Your task to perform on an android device: Add logitech g pro to the cart on costco.com, then select checkout. Image 0: 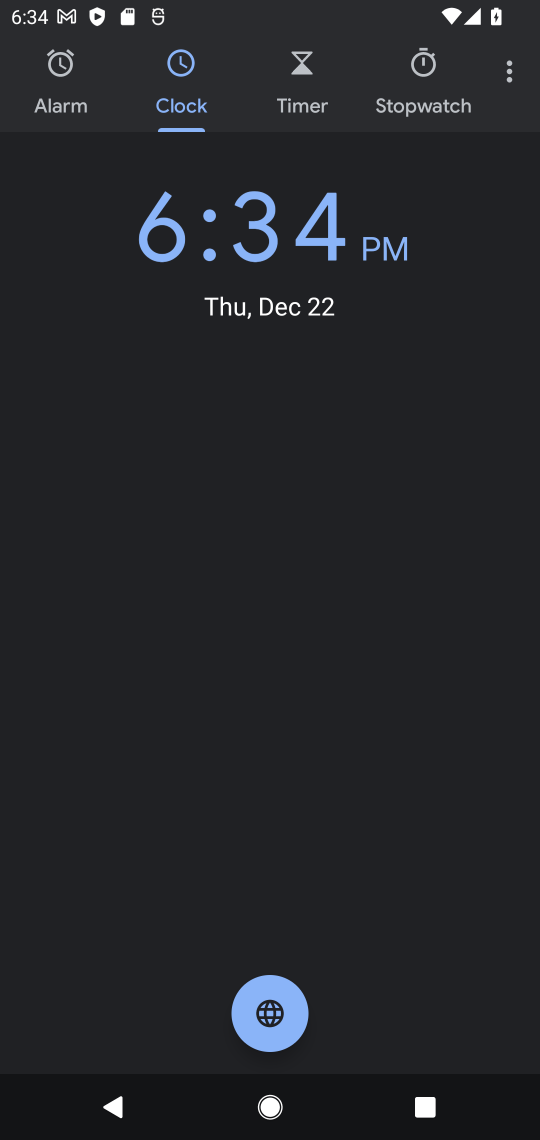
Step 0: press home button
Your task to perform on an android device: Add logitech g pro to the cart on costco.com, then select checkout. Image 1: 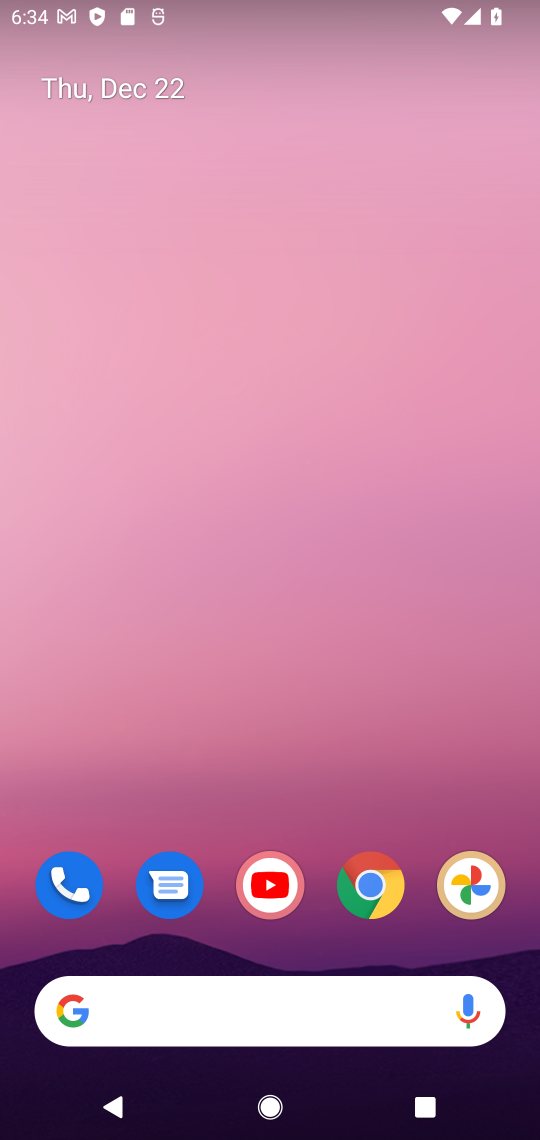
Step 1: click (388, 884)
Your task to perform on an android device: Add logitech g pro to the cart on costco.com, then select checkout. Image 2: 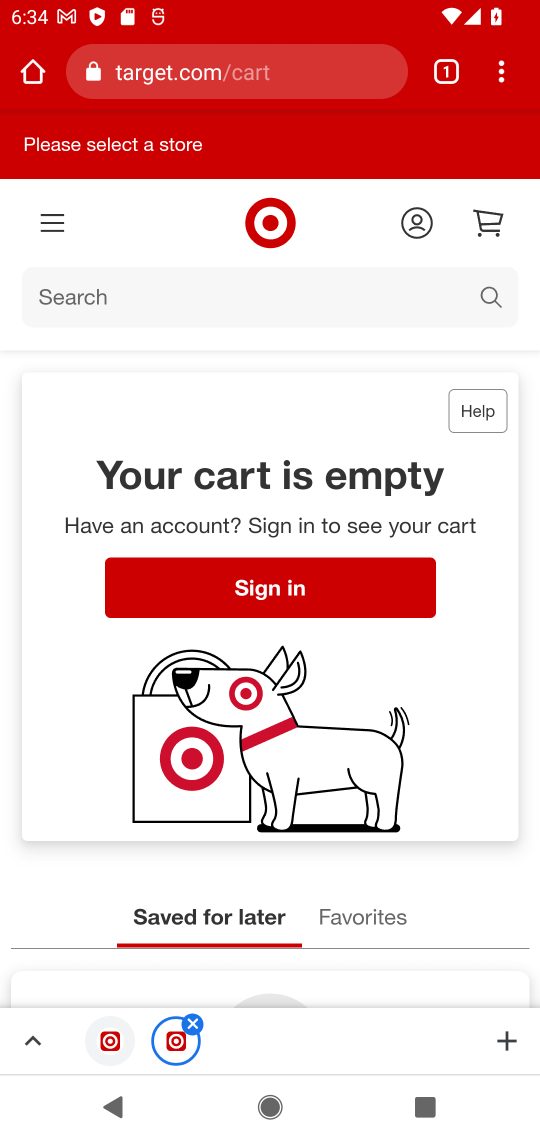
Step 2: click (182, 70)
Your task to perform on an android device: Add logitech g pro to the cart on costco.com, then select checkout. Image 3: 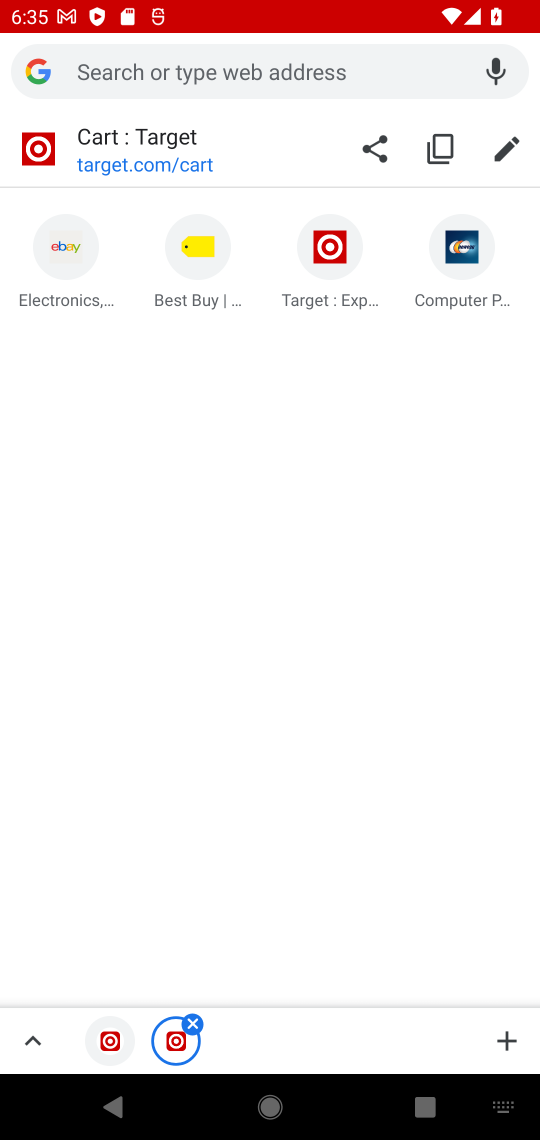
Step 3: type "costco.com"
Your task to perform on an android device: Add logitech g pro to the cart on costco.com, then select checkout. Image 4: 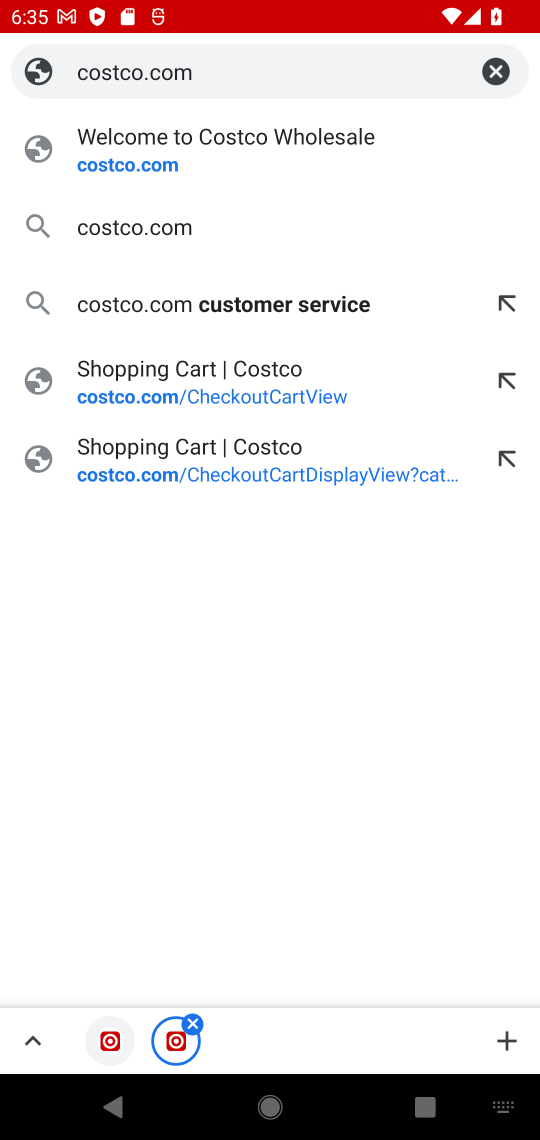
Step 4: click (154, 184)
Your task to perform on an android device: Add logitech g pro to the cart on costco.com, then select checkout. Image 5: 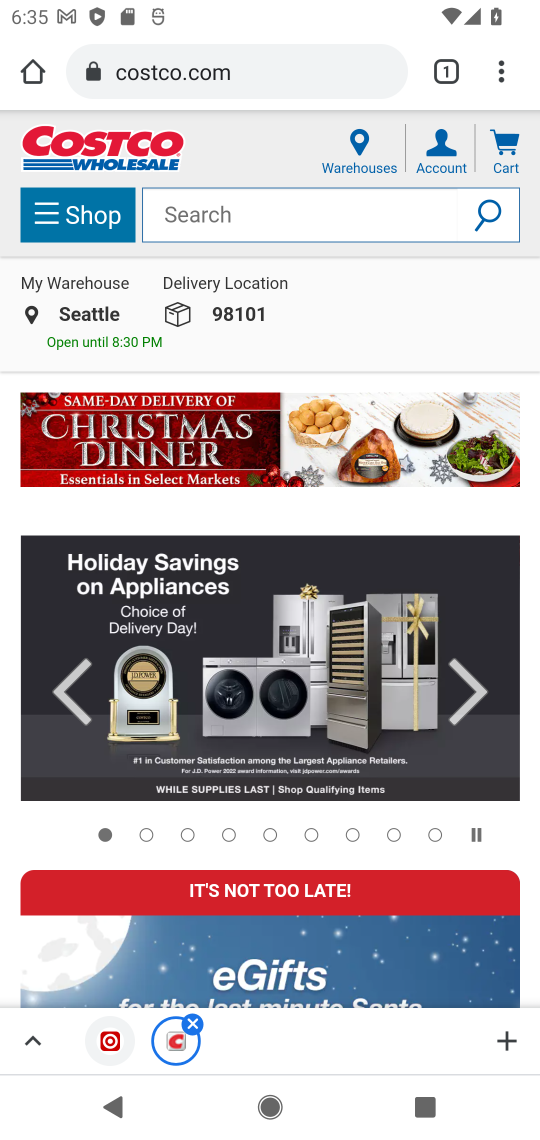
Step 5: click (203, 212)
Your task to perform on an android device: Add logitech g pro to the cart on costco.com, then select checkout. Image 6: 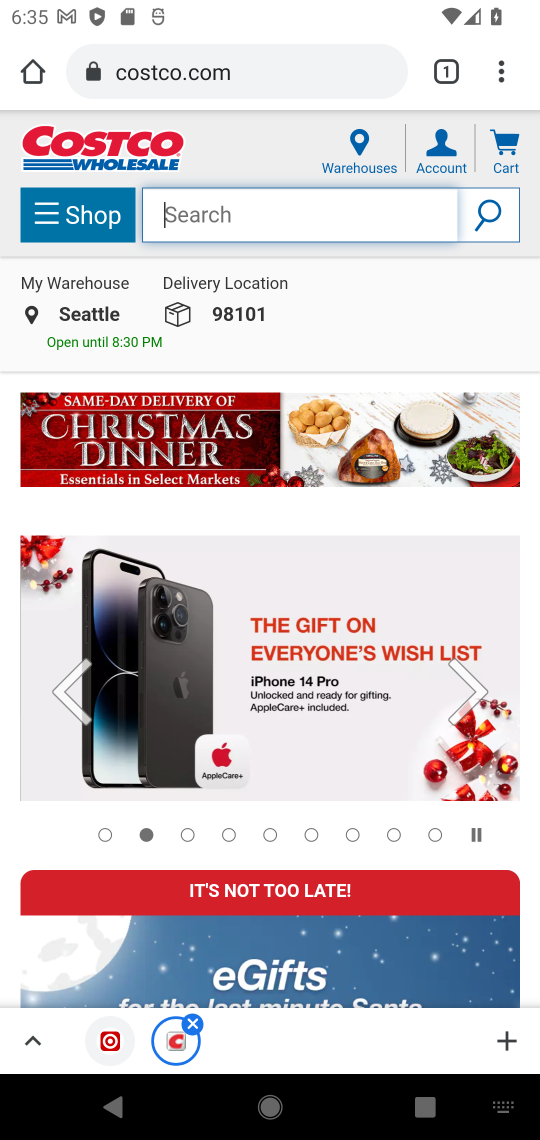
Step 6: type " logitech g pro"
Your task to perform on an android device: Add logitech g pro to the cart on costco.com, then select checkout. Image 7: 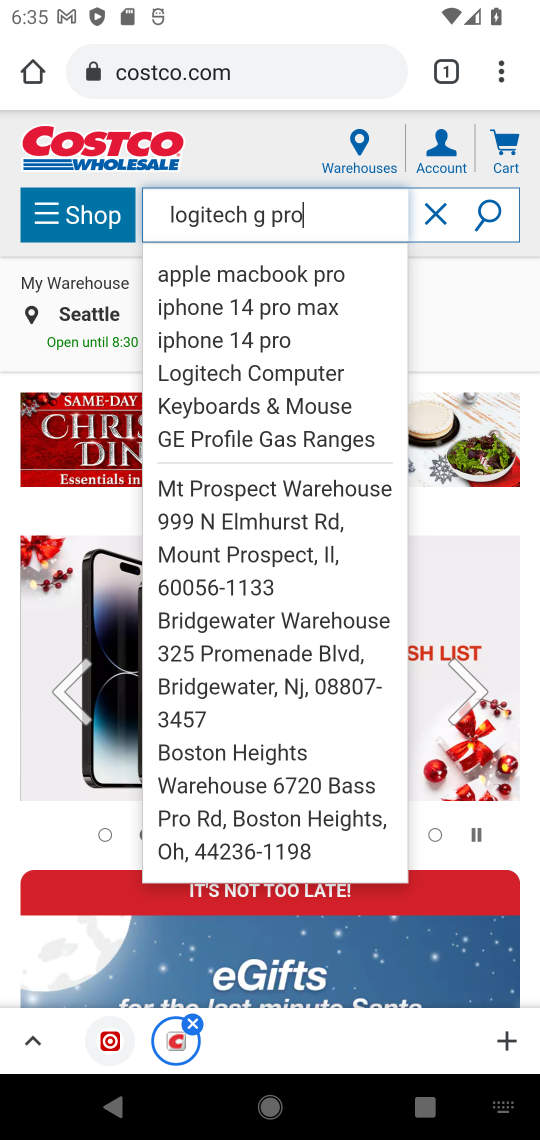
Step 7: click (483, 217)
Your task to perform on an android device: Add logitech g pro to the cart on costco.com, then select checkout. Image 8: 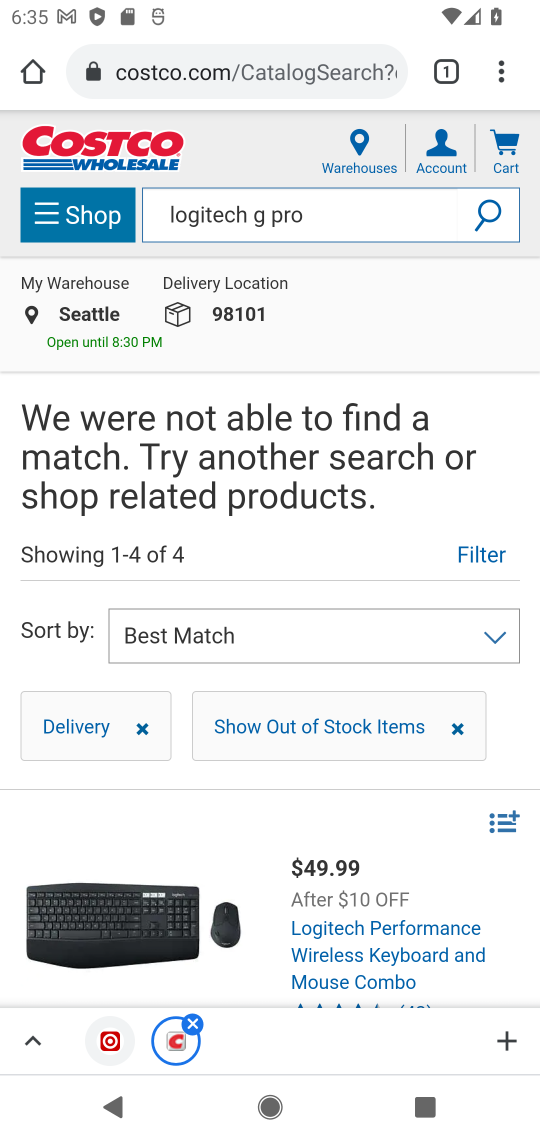
Step 8: task complete